Your task to perform on an android device: Search for macbook air on costco.com, select the first entry, add it to the cart, then select checkout. Image 0: 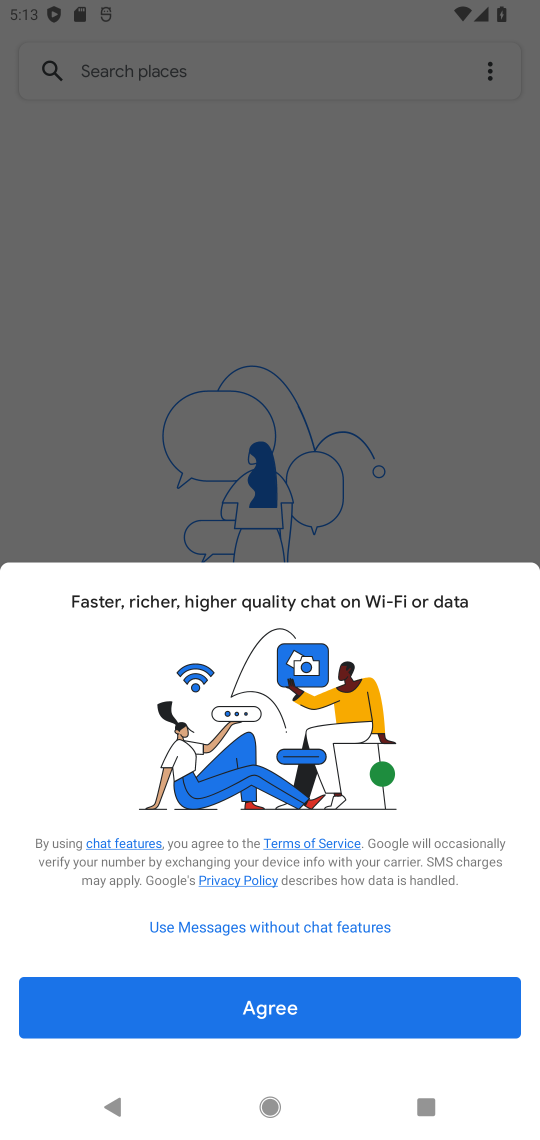
Step 0: press home button
Your task to perform on an android device: Search for macbook air on costco.com, select the first entry, add it to the cart, then select checkout. Image 1: 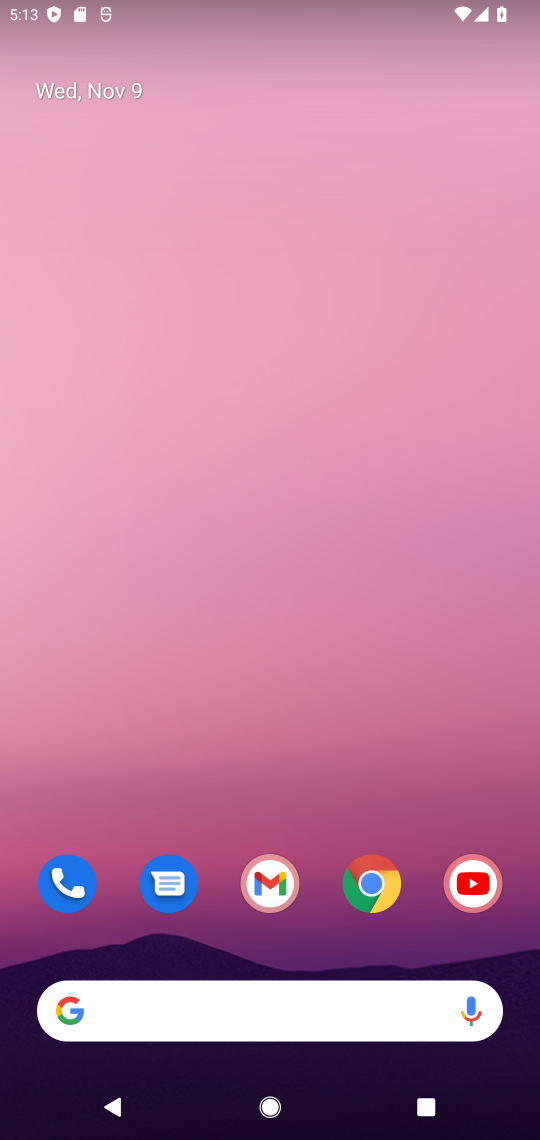
Step 1: click (383, 879)
Your task to perform on an android device: Search for macbook air on costco.com, select the first entry, add it to the cart, then select checkout. Image 2: 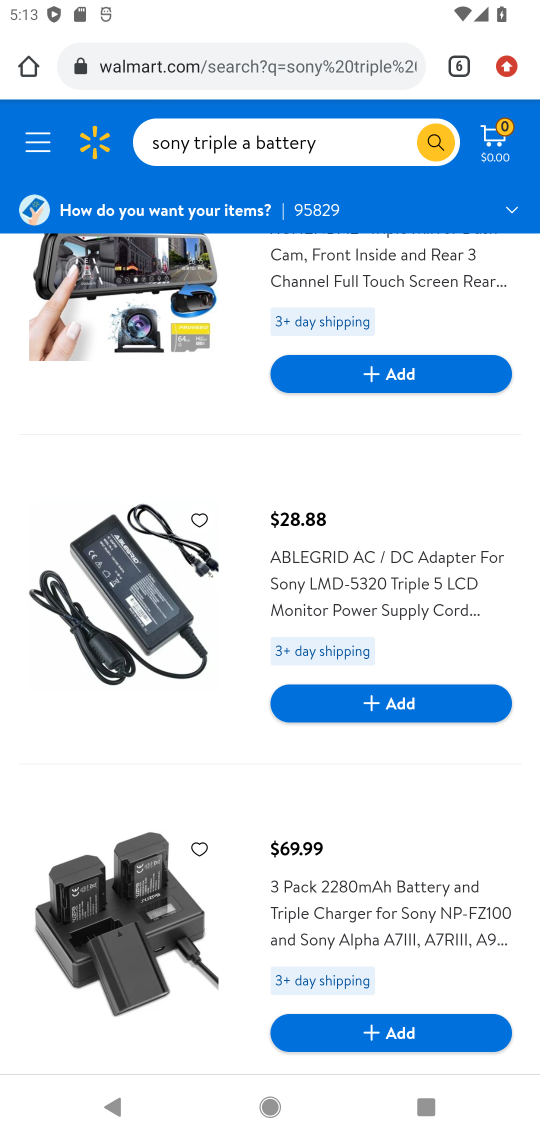
Step 2: click (459, 63)
Your task to perform on an android device: Search for macbook air on costco.com, select the first entry, add it to the cart, then select checkout. Image 3: 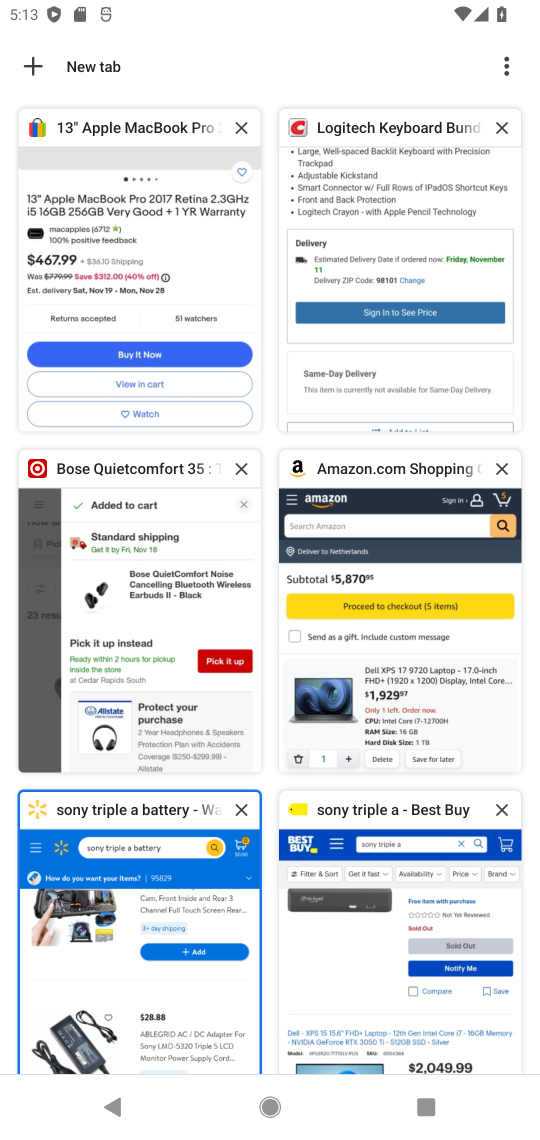
Step 3: click (401, 239)
Your task to perform on an android device: Search for macbook air on costco.com, select the first entry, add it to the cart, then select checkout. Image 4: 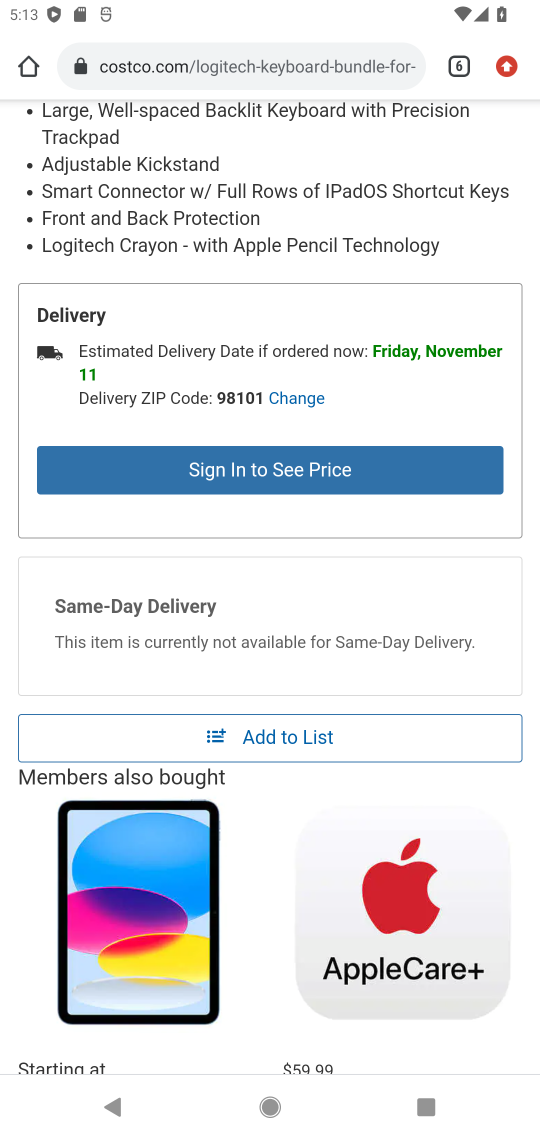
Step 4: drag from (424, 171) to (341, 758)
Your task to perform on an android device: Search for macbook air on costco.com, select the first entry, add it to the cart, then select checkout. Image 5: 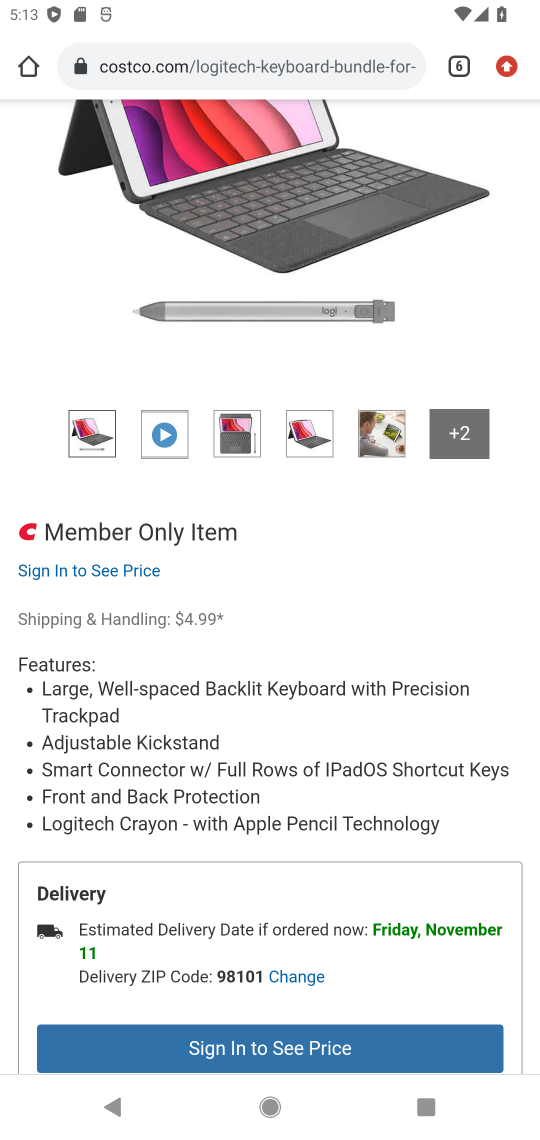
Step 5: drag from (406, 231) to (387, 593)
Your task to perform on an android device: Search for macbook air on costco.com, select the first entry, add it to the cart, then select checkout. Image 6: 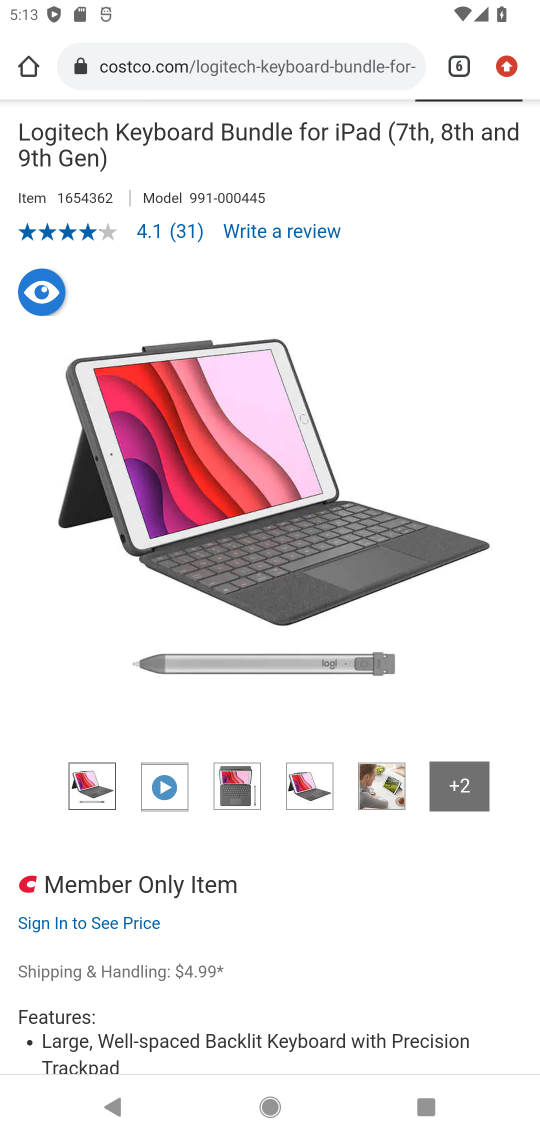
Step 6: drag from (414, 172) to (379, 606)
Your task to perform on an android device: Search for macbook air on costco.com, select the first entry, add it to the cart, then select checkout. Image 7: 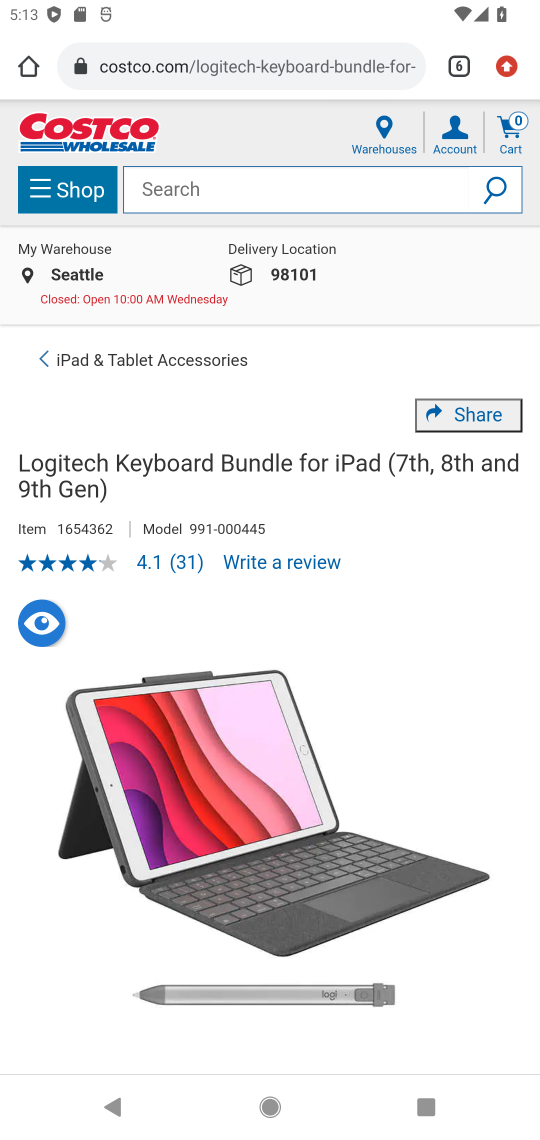
Step 7: click (184, 194)
Your task to perform on an android device: Search for macbook air on costco.com, select the first entry, add it to the cart, then select checkout. Image 8: 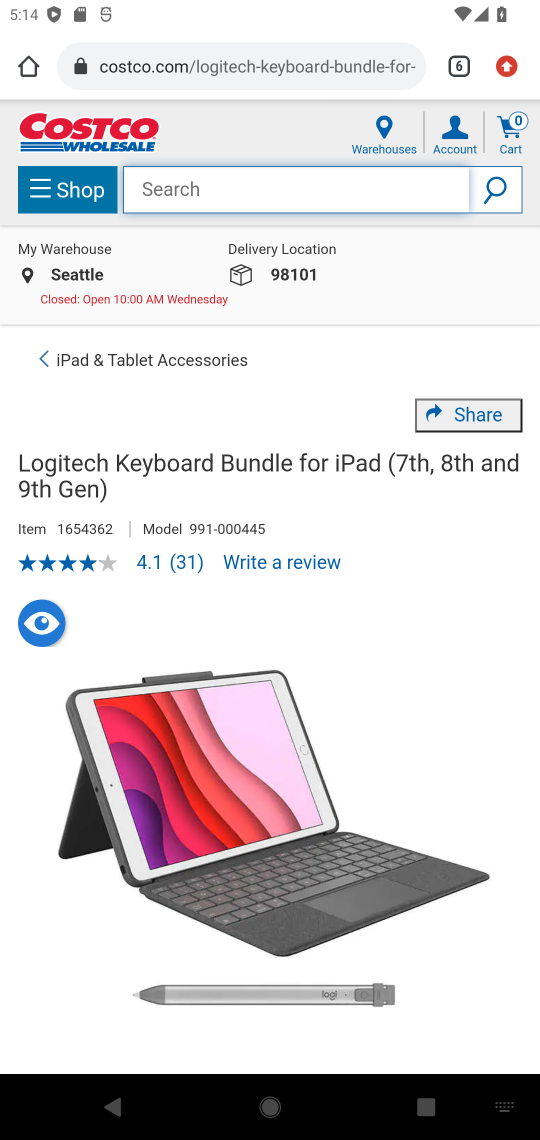
Step 8: type "macbook air"
Your task to perform on an android device: Search for macbook air on costco.com, select the first entry, add it to the cart, then select checkout. Image 9: 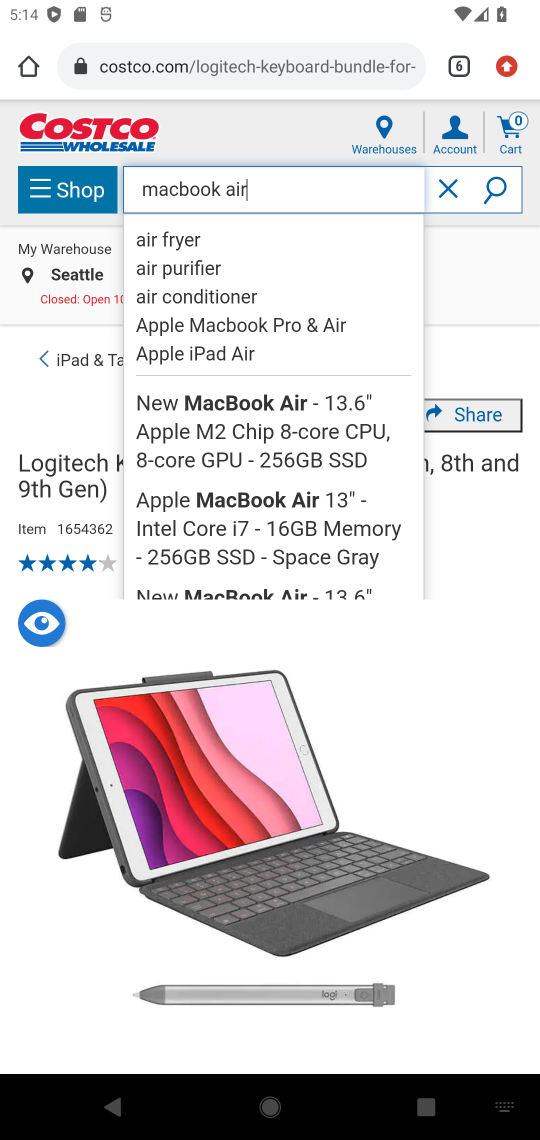
Step 9: click (253, 424)
Your task to perform on an android device: Search for macbook air on costco.com, select the first entry, add it to the cart, then select checkout. Image 10: 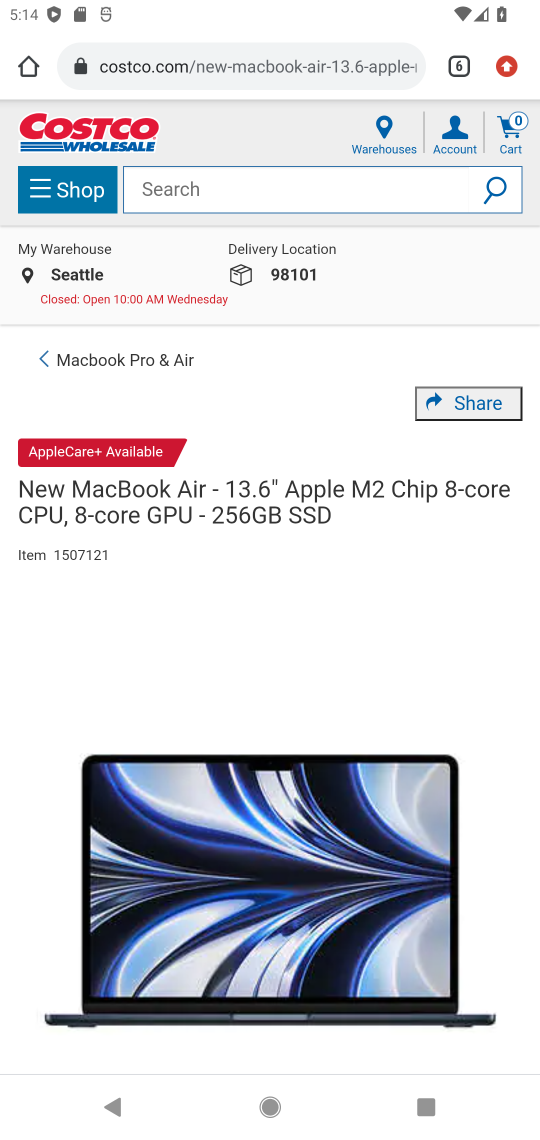
Step 10: drag from (366, 990) to (438, 483)
Your task to perform on an android device: Search for macbook air on costco.com, select the first entry, add it to the cart, then select checkout. Image 11: 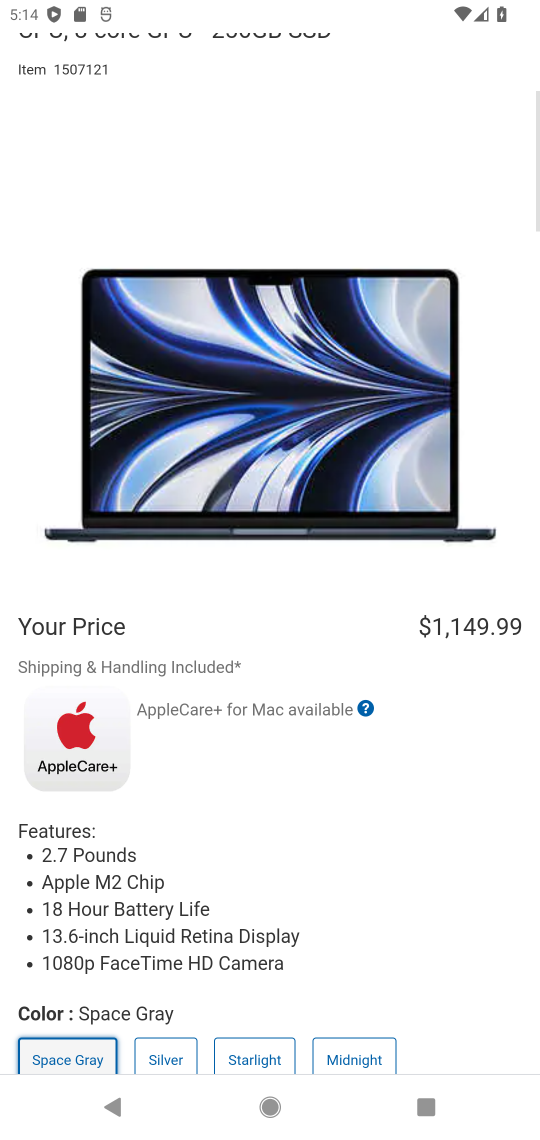
Step 11: drag from (311, 931) to (513, 316)
Your task to perform on an android device: Search for macbook air on costco.com, select the first entry, add it to the cart, then select checkout. Image 12: 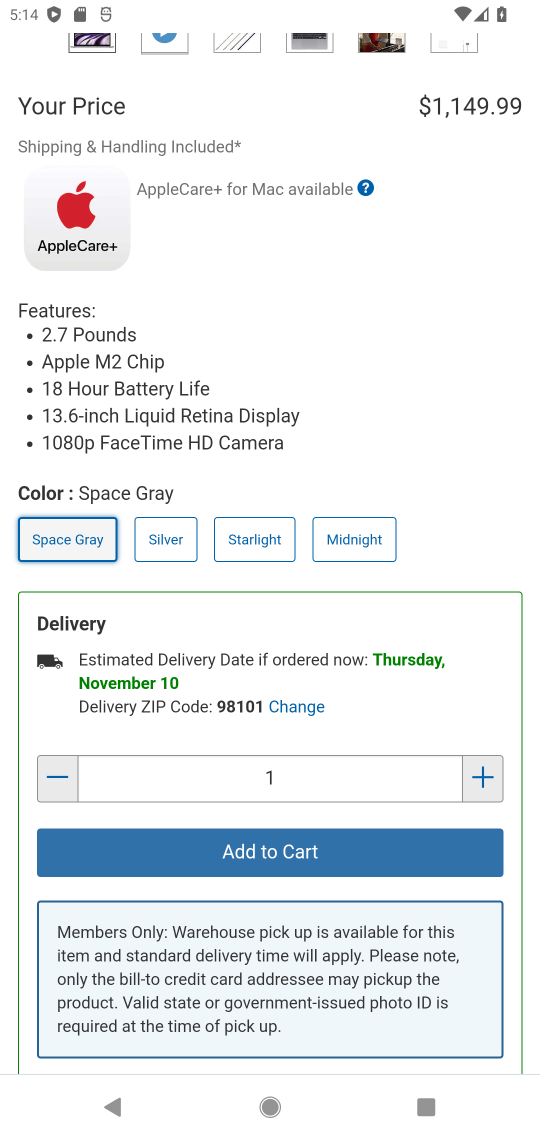
Step 12: click (272, 861)
Your task to perform on an android device: Search for macbook air on costco.com, select the first entry, add it to the cart, then select checkout. Image 13: 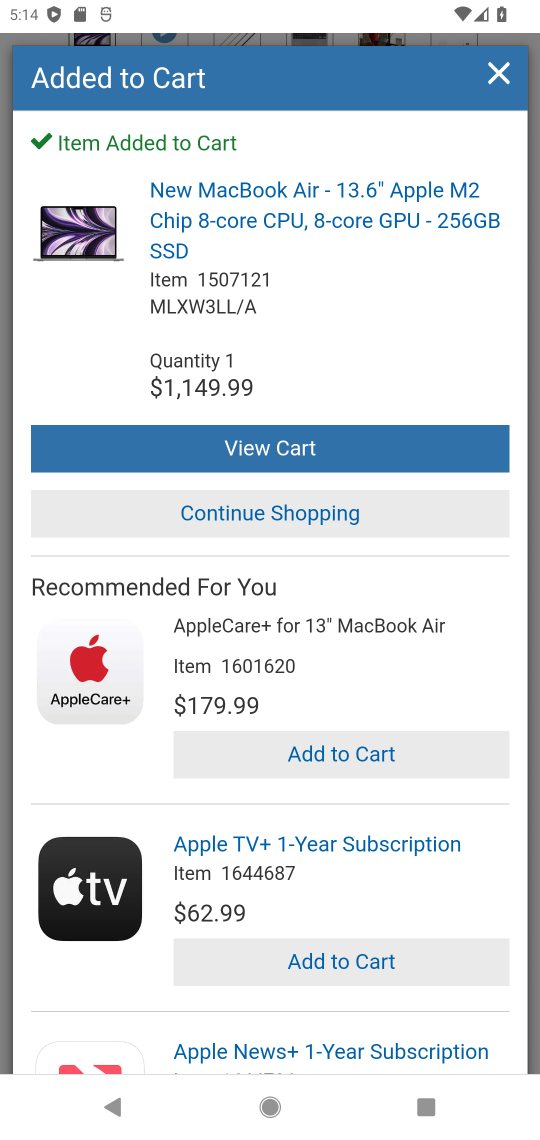
Step 13: click (350, 457)
Your task to perform on an android device: Search for macbook air on costco.com, select the first entry, add it to the cart, then select checkout. Image 14: 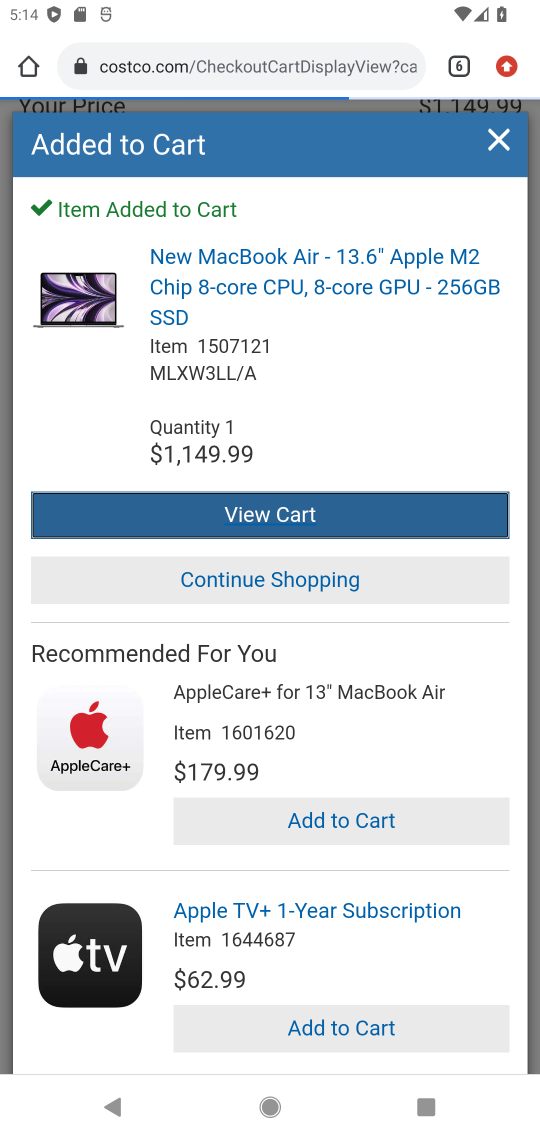
Step 14: click (311, 514)
Your task to perform on an android device: Search for macbook air on costco.com, select the first entry, add it to the cart, then select checkout. Image 15: 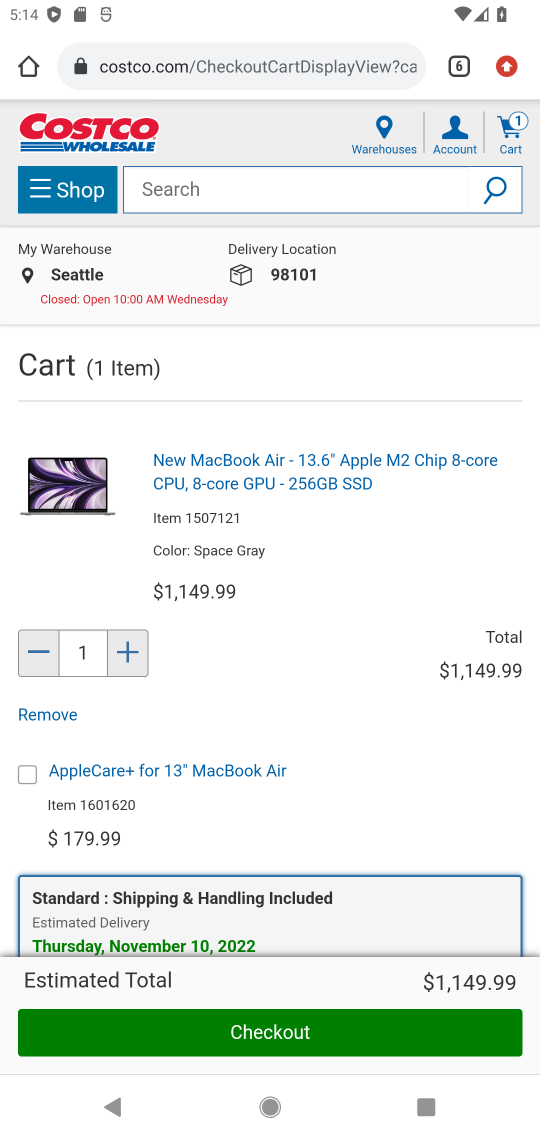
Step 15: click (267, 1029)
Your task to perform on an android device: Search for macbook air on costco.com, select the first entry, add it to the cart, then select checkout. Image 16: 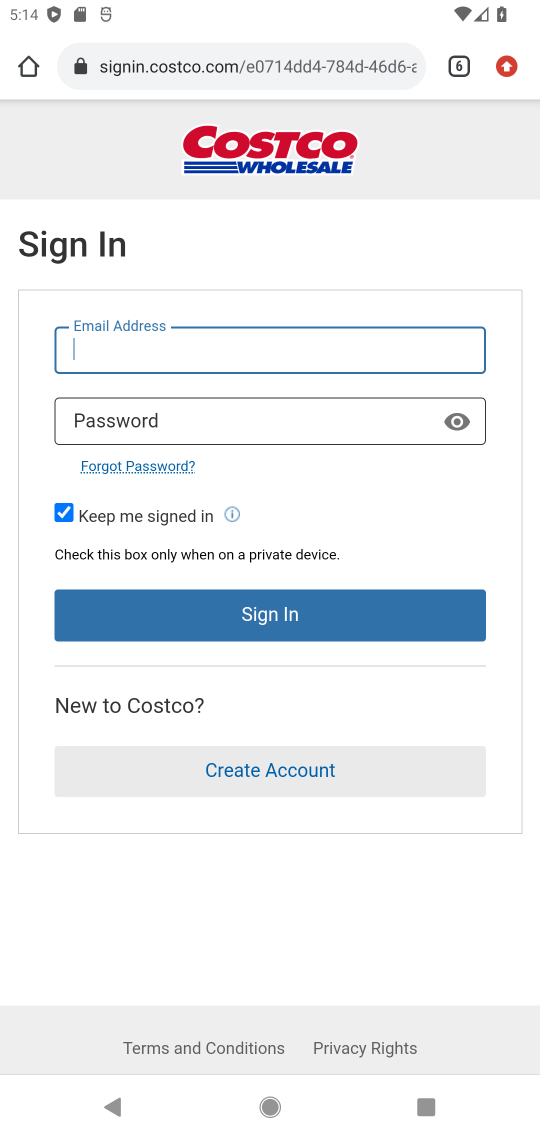
Step 16: task complete